Your task to perform on an android device: visit the assistant section in the google photos Image 0: 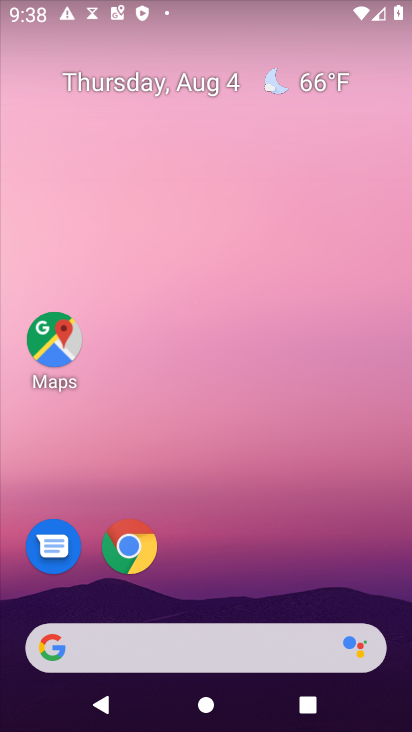
Step 0: press home button
Your task to perform on an android device: visit the assistant section in the google photos Image 1: 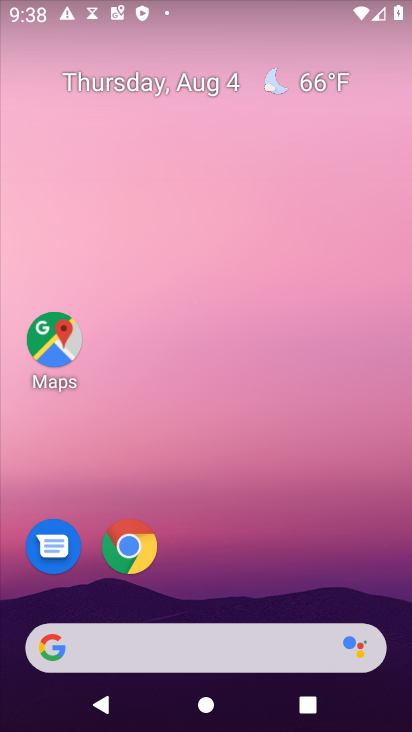
Step 1: drag from (264, 604) to (313, 70)
Your task to perform on an android device: visit the assistant section in the google photos Image 2: 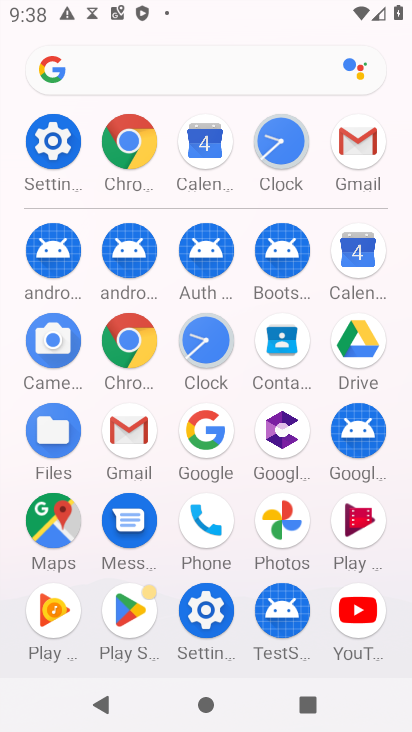
Step 2: click (285, 516)
Your task to perform on an android device: visit the assistant section in the google photos Image 3: 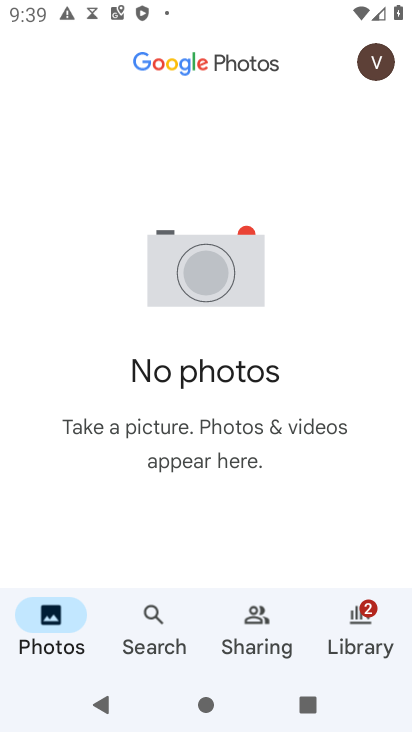
Step 3: task complete